Your task to perform on an android device: turn vacation reply on in the gmail app Image 0: 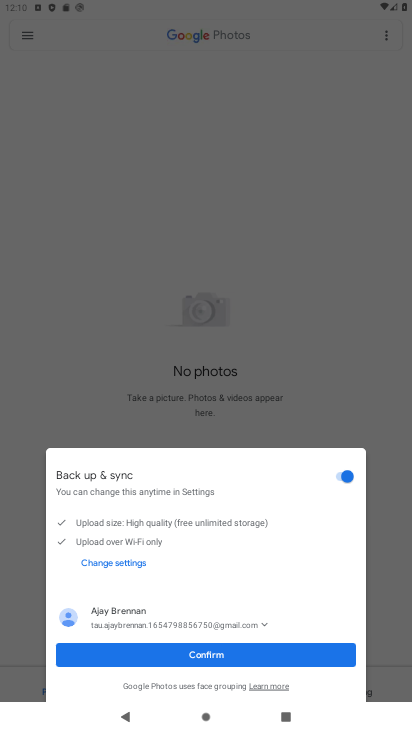
Step 0: press home button
Your task to perform on an android device: turn vacation reply on in the gmail app Image 1: 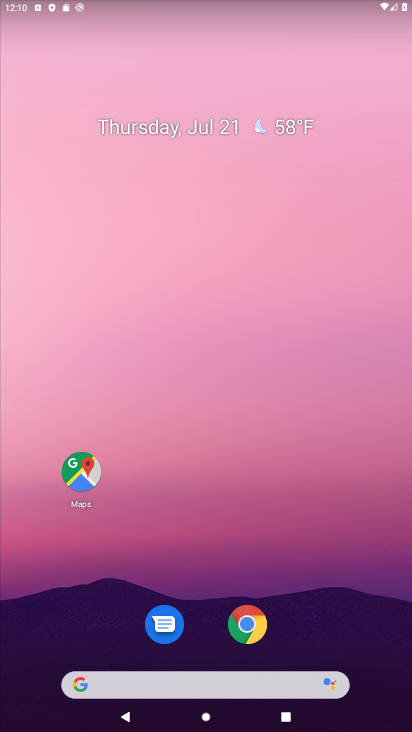
Step 1: drag from (213, 608) to (245, 126)
Your task to perform on an android device: turn vacation reply on in the gmail app Image 2: 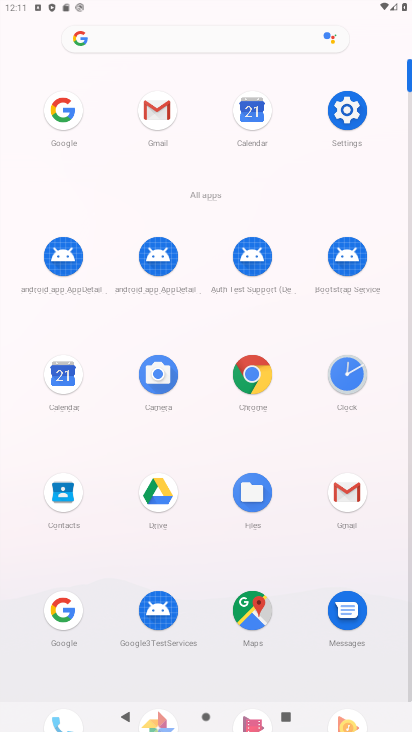
Step 2: click (153, 123)
Your task to perform on an android device: turn vacation reply on in the gmail app Image 3: 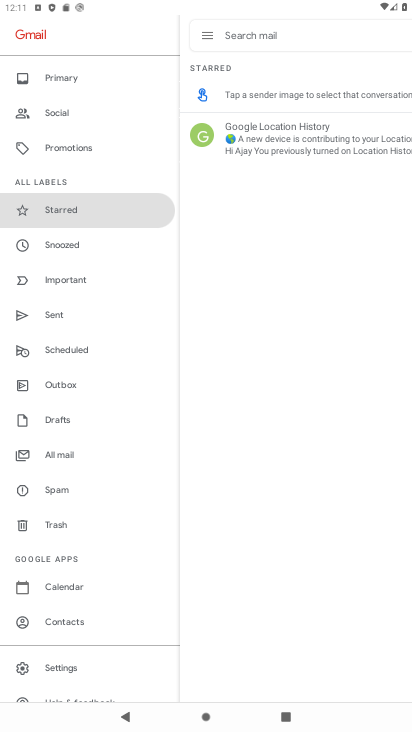
Step 3: click (73, 658)
Your task to perform on an android device: turn vacation reply on in the gmail app Image 4: 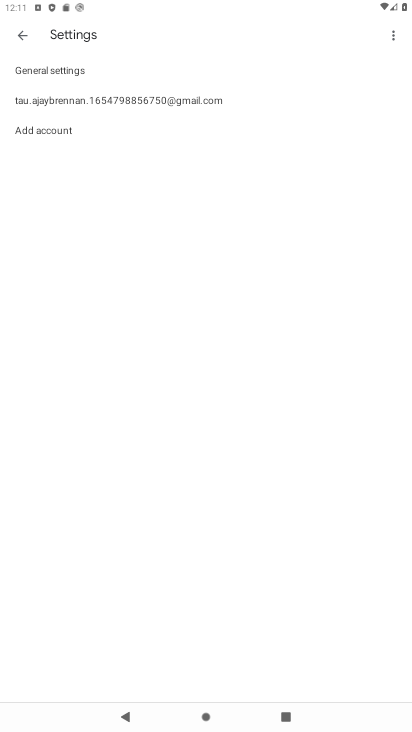
Step 4: click (68, 96)
Your task to perform on an android device: turn vacation reply on in the gmail app Image 5: 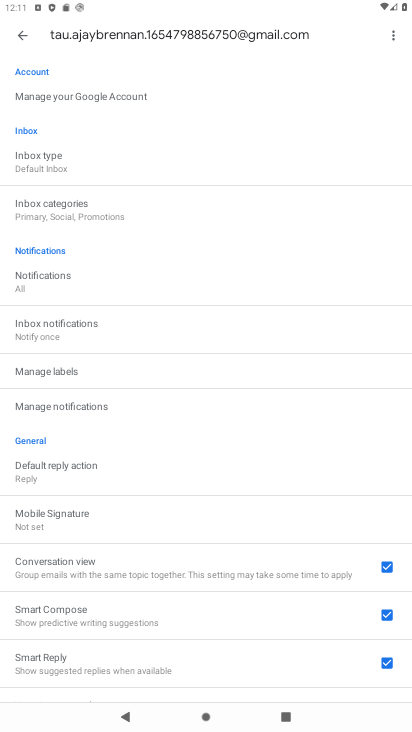
Step 5: drag from (148, 653) to (205, 300)
Your task to perform on an android device: turn vacation reply on in the gmail app Image 6: 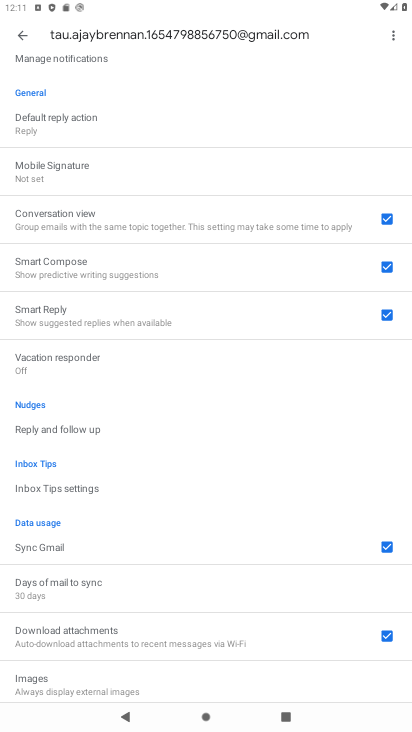
Step 6: click (117, 374)
Your task to perform on an android device: turn vacation reply on in the gmail app Image 7: 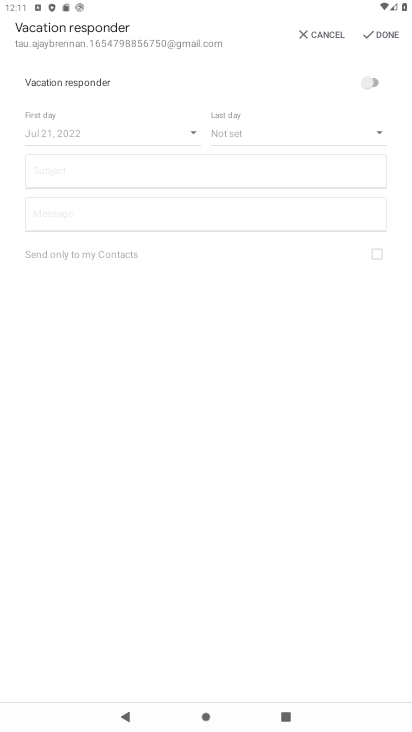
Step 7: click (379, 84)
Your task to perform on an android device: turn vacation reply on in the gmail app Image 8: 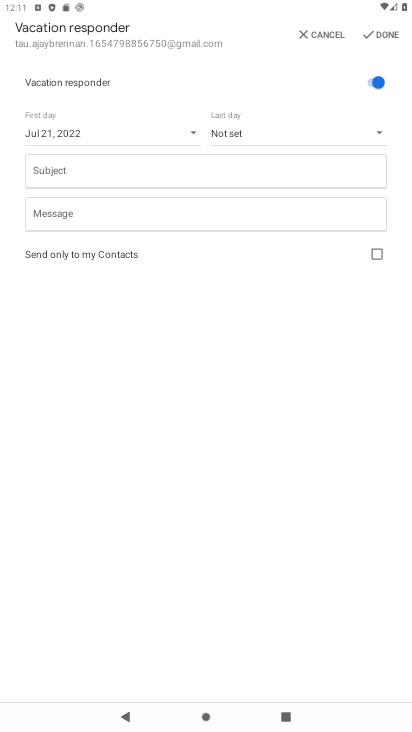
Step 8: task complete